Your task to perform on an android device: Open Youtube and go to the subscriptions tab Image 0: 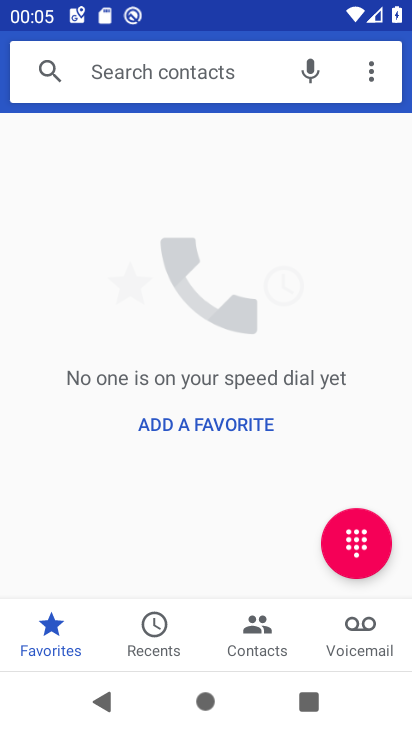
Step 0: press home button
Your task to perform on an android device: Open Youtube and go to the subscriptions tab Image 1: 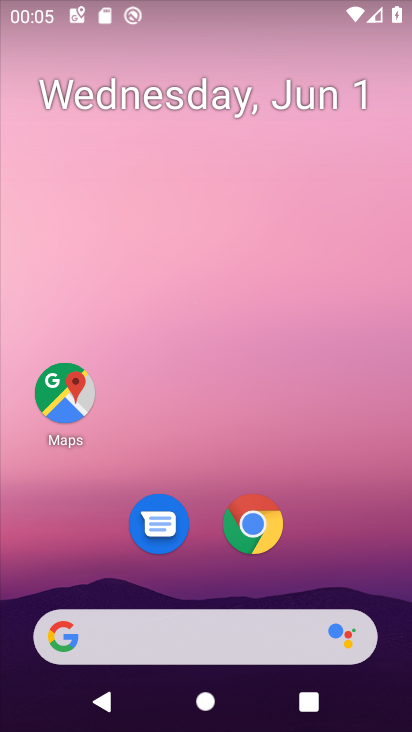
Step 1: drag from (307, 532) to (285, 2)
Your task to perform on an android device: Open Youtube and go to the subscriptions tab Image 2: 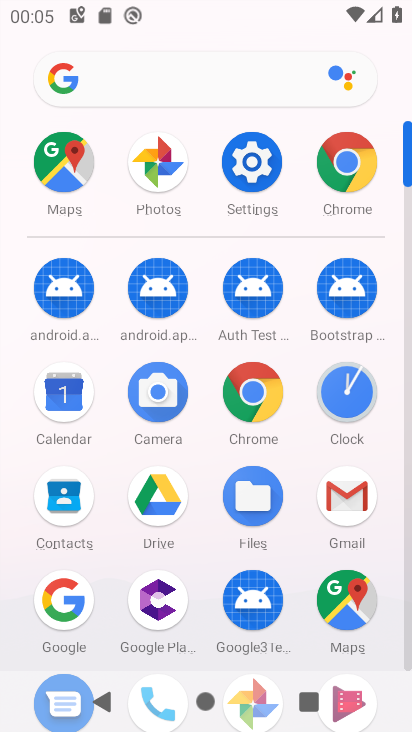
Step 2: drag from (206, 383) to (217, 111)
Your task to perform on an android device: Open Youtube and go to the subscriptions tab Image 3: 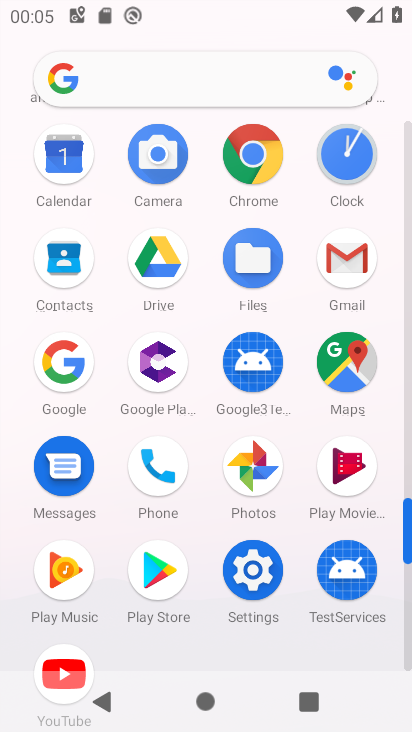
Step 3: click (64, 659)
Your task to perform on an android device: Open Youtube and go to the subscriptions tab Image 4: 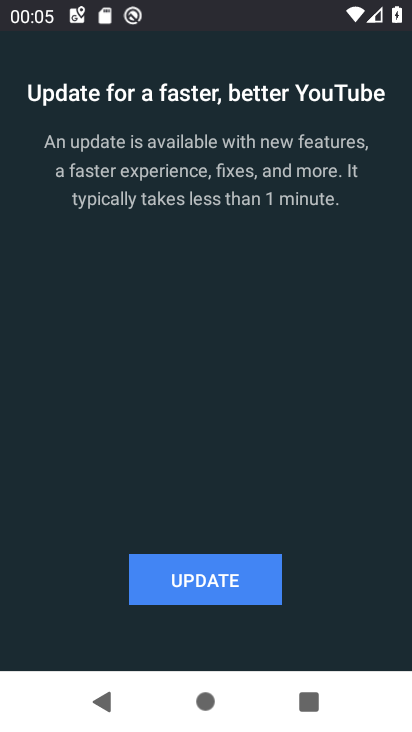
Step 4: click (232, 585)
Your task to perform on an android device: Open Youtube and go to the subscriptions tab Image 5: 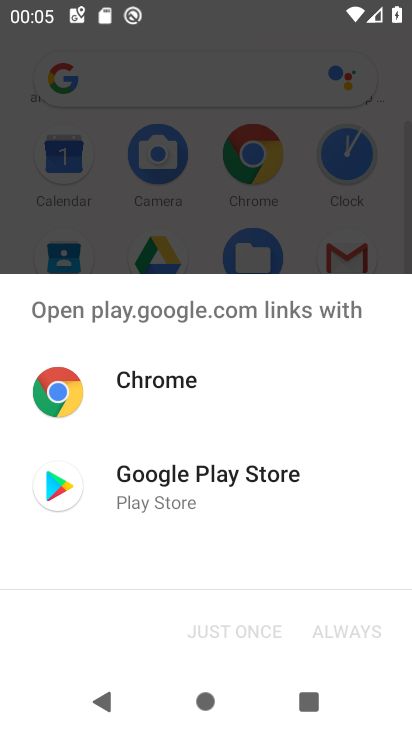
Step 5: click (139, 491)
Your task to perform on an android device: Open Youtube and go to the subscriptions tab Image 6: 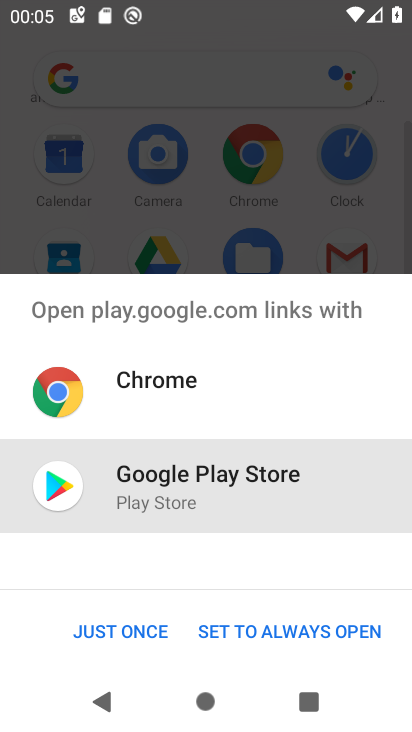
Step 6: click (143, 634)
Your task to perform on an android device: Open Youtube and go to the subscriptions tab Image 7: 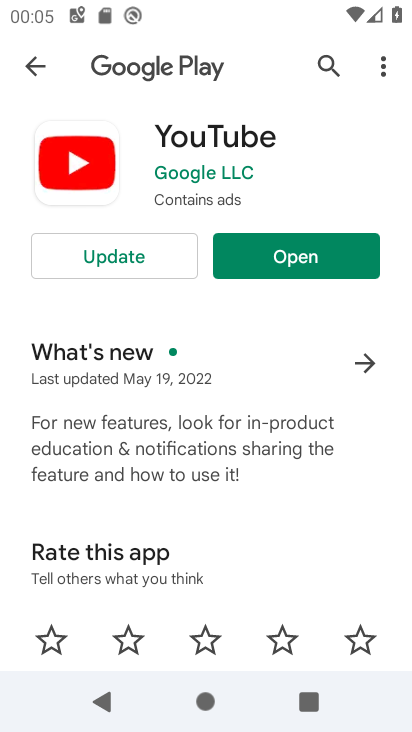
Step 7: click (180, 256)
Your task to perform on an android device: Open Youtube and go to the subscriptions tab Image 8: 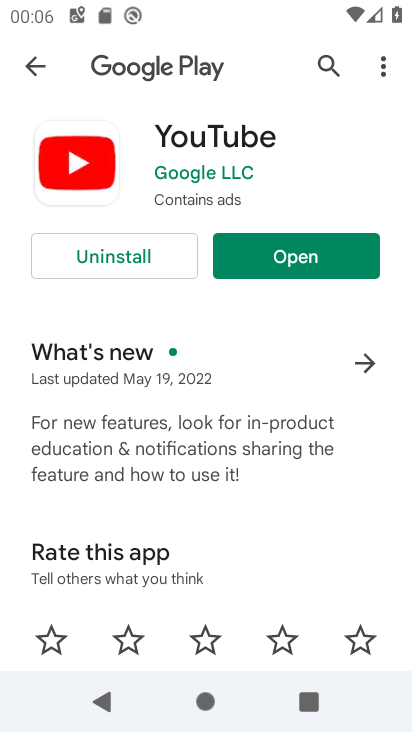
Step 8: click (278, 263)
Your task to perform on an android device: Open Youtube and go to the subscriptions tab Image 9: 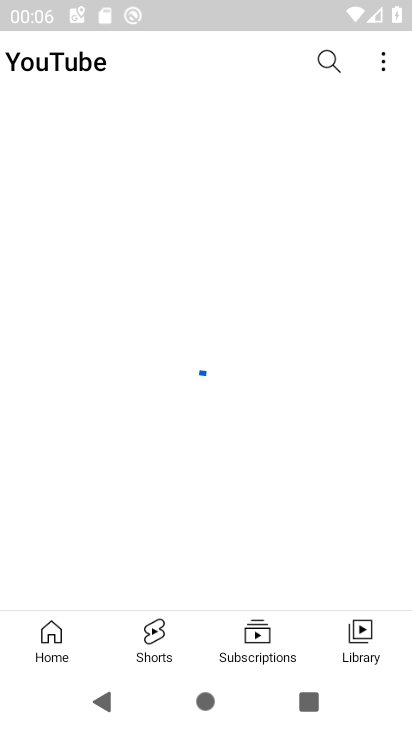
Step 9: click (256, 641)
Your task to perform on an android device: Open Youtube and go to the subscriptions tab Image 10: 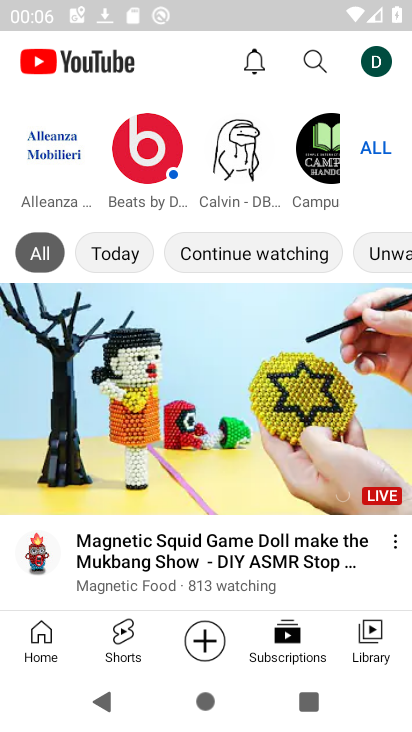
Step 10: click (291, 625)
Your task to perform on an android device: Open Youtube and go to the subscriptions tab Image 11: 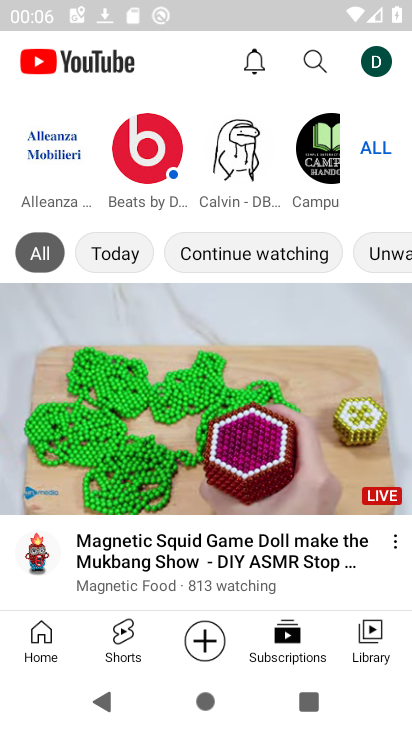
Step 11: task complete